Your task to perform on an android device: What is the recent news? Image 0: 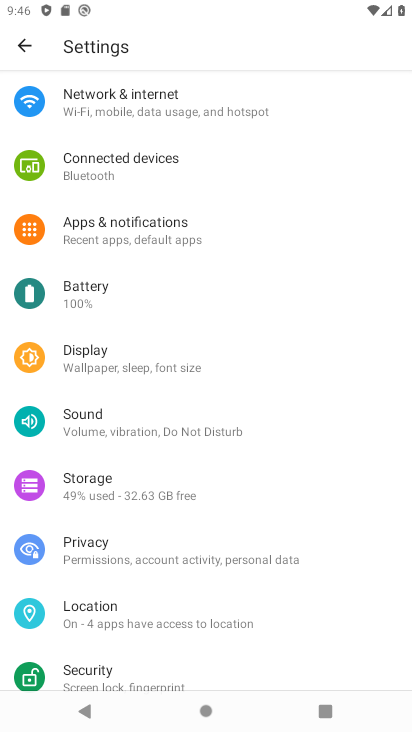
Step 0: press home button
Your task to perform on an android device: What is the recent news? Image 1: 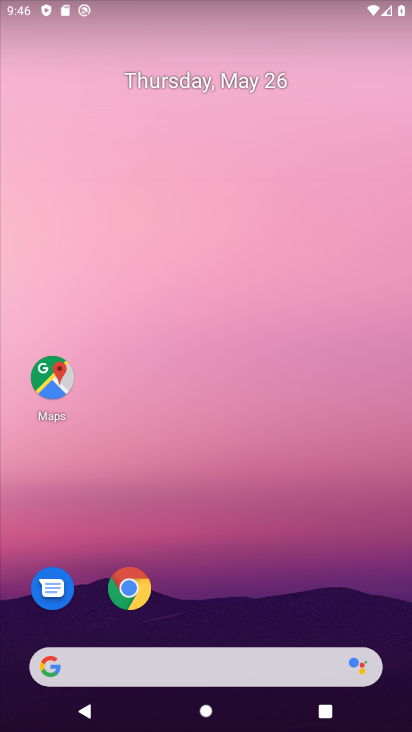
Step 1: task complete